Your task to perform on an android device: Go to battery settings Image 0: 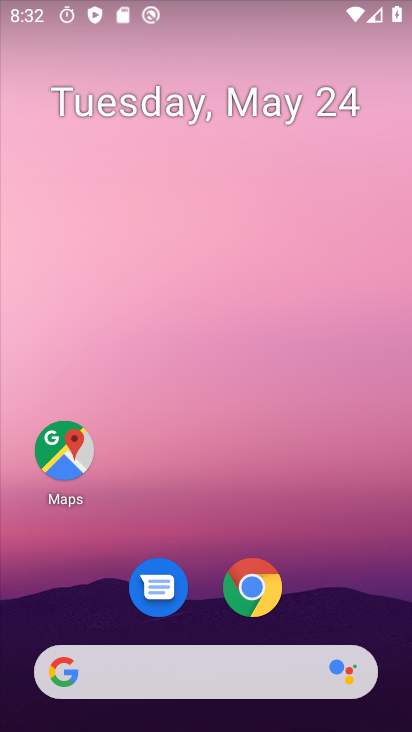
Step 0: drag from (328, 552) to (197, 90)
Your task to perform on an android device: Go to battery settings Image 1: 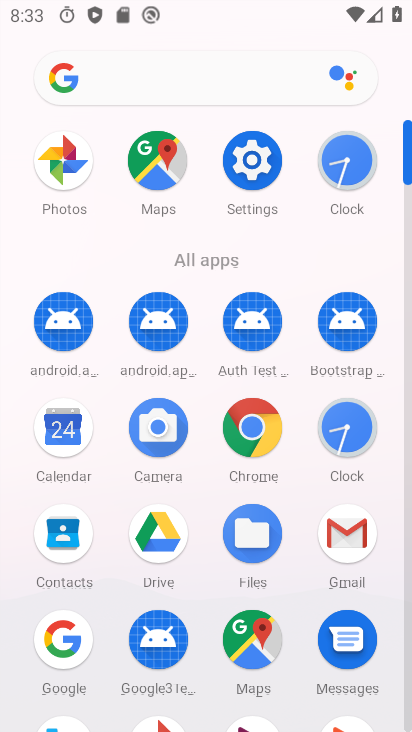
Step 1: click (254, 159)
Your task to perform on an android device: Go to battery settings Image 2: 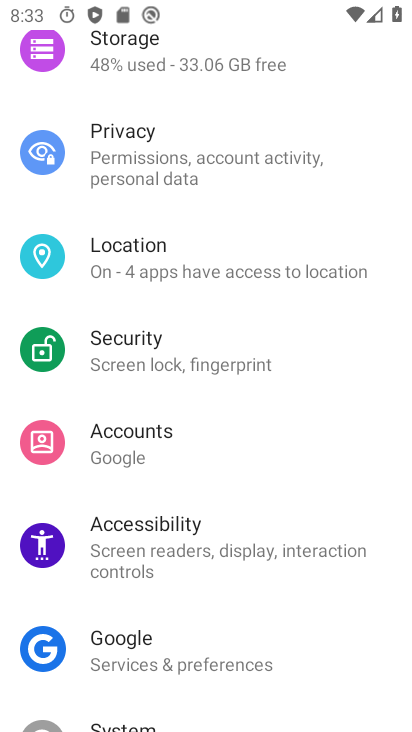
Step 2: drag from (264, 227) to (272, 315)
Your task to perform on an android device: Go to battery settings Image 3: 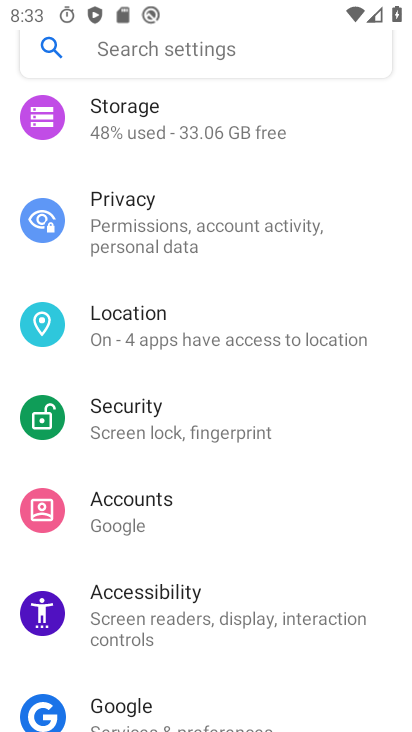
Step 3: drag from (242, 191) to (275, 275)
Your task to perform on an android device: Go to battery settings Image 4: 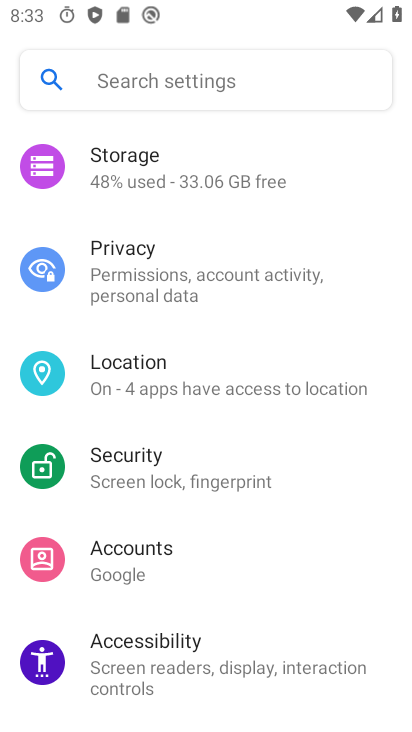
Step 4: drag from (253, 148) to (261, 241)
Your task to perform on an android device: Go to battery settings Image 5: 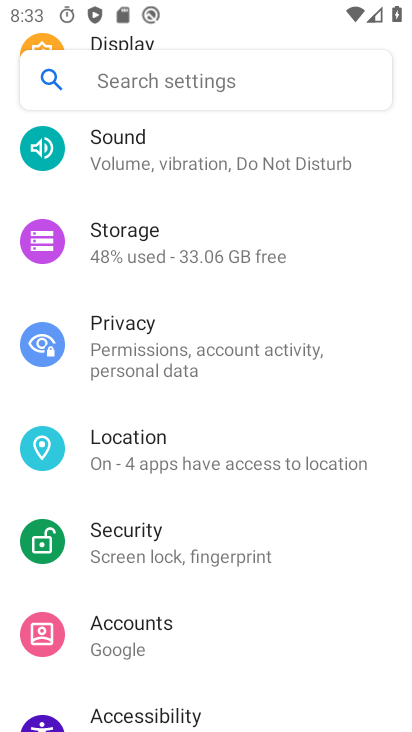
Step 5: drag from (197, 219) to (201, 314)
Your task to perform on an android device: Go to battery settings Image 6: 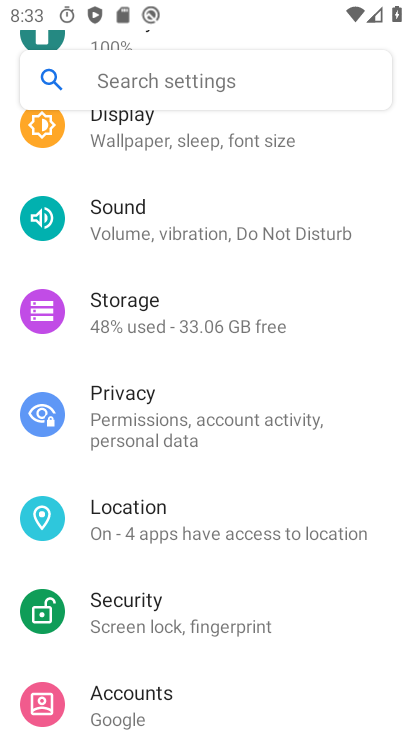
Step 6: drag from (209, 196) to (224, 294)
Your task to perform on an android device: Go to battery settings Image 7: 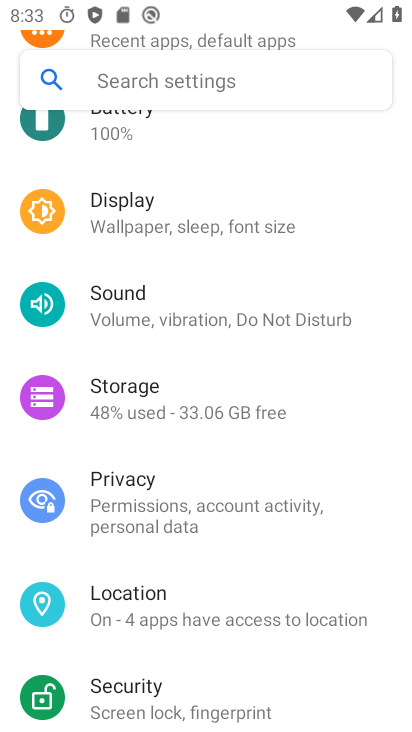
Step 7: drag from (203, 182) to (184, 294)
Your task to perform on an android device: Go to battery settings Image 8: 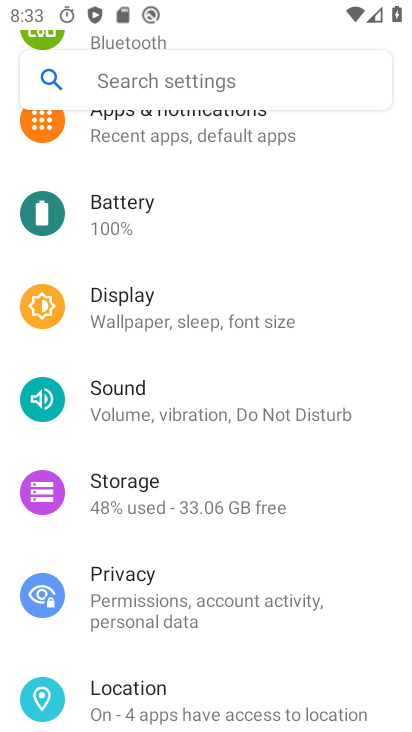
Step 8: click (131, 207)
Your task to perform on an android device: Go to battery settings Image 9: 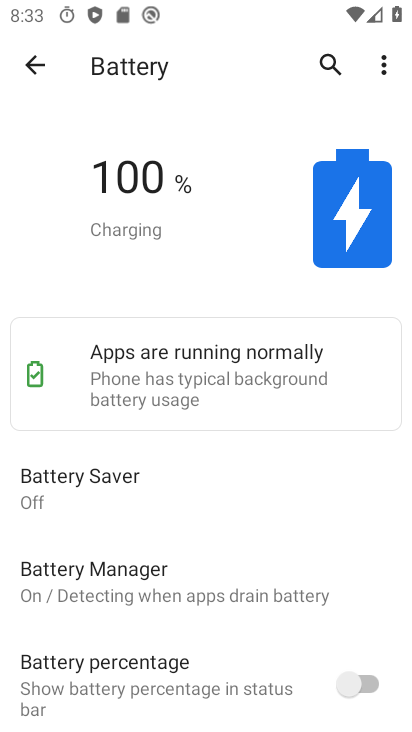
Step 9: task complete